Your task to perform on an android device: How much does a 3 bedroom apartment rent for in Boston? Image 0: 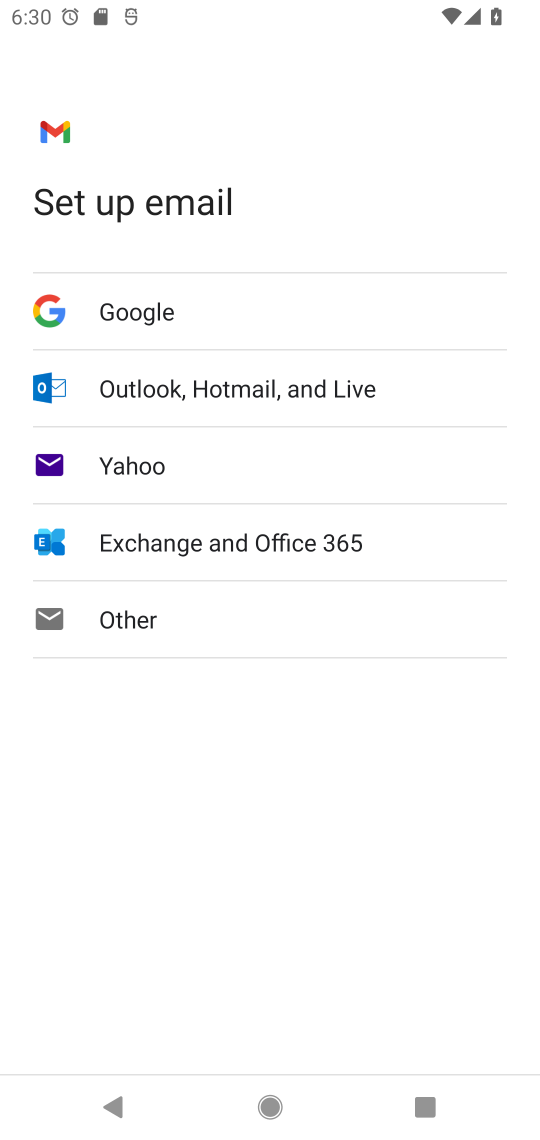
Step 0: press home button
Your task to perform on an android device: How much does a 3 bedroom apartment rent for in Boston? Image 1: 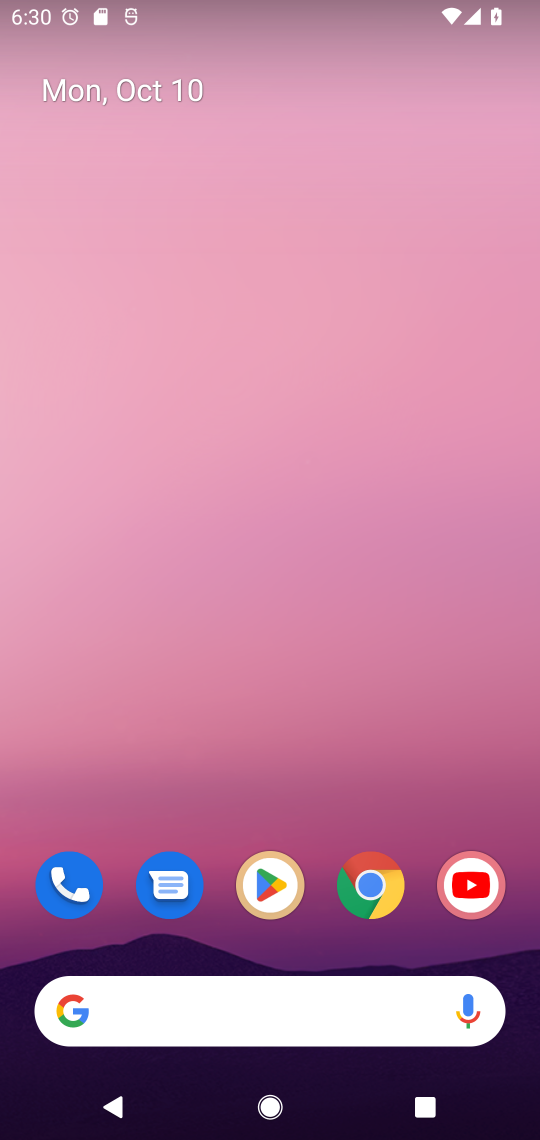
Step 1: click (377, 878)
Your task to perform on an android device: How much does a 3 bedroom apartment rent for in Boston? Image 2: 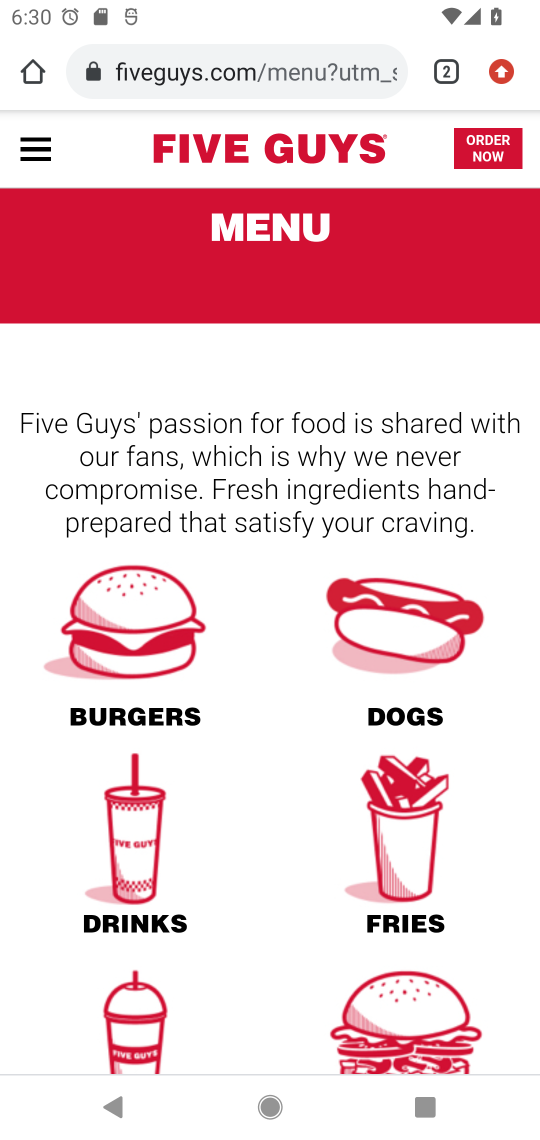
Step 2: click (253, 66)
Your task to perform on an android device: How much does a 3 bedroom apartment rent for in Boston? Image 3: 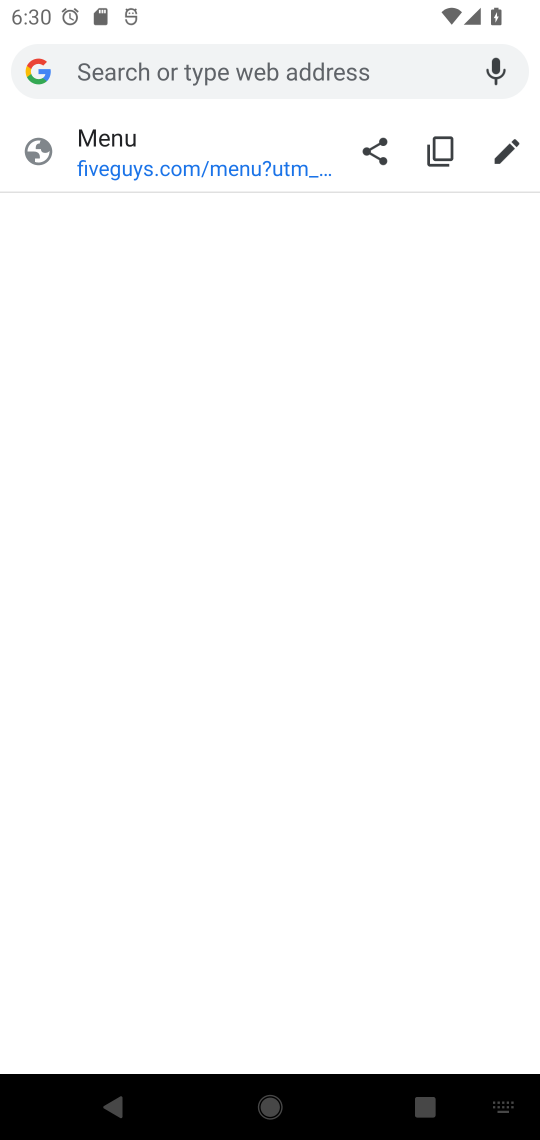
Step 3: type "3 bedroom apartment rent for in Boston"
Your task to perform on an android device: How much does a 3 bedroom apartment rent for in Boston? Image 4: 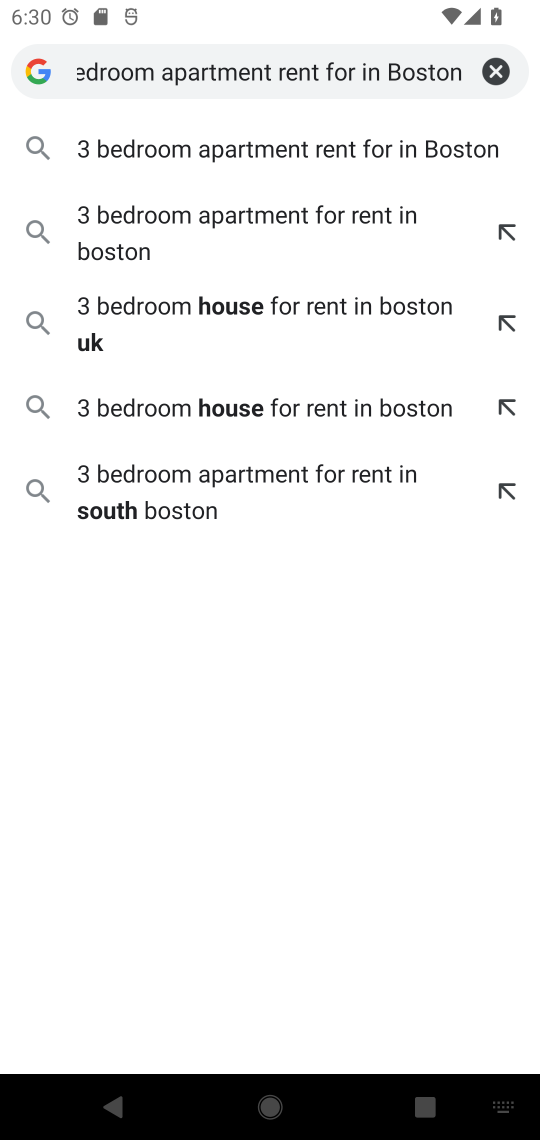
Step 4: click (247, 144)
Your task to perform on an android device: How much does a 3 bedroom apartment rent for in Boston? Image 5: 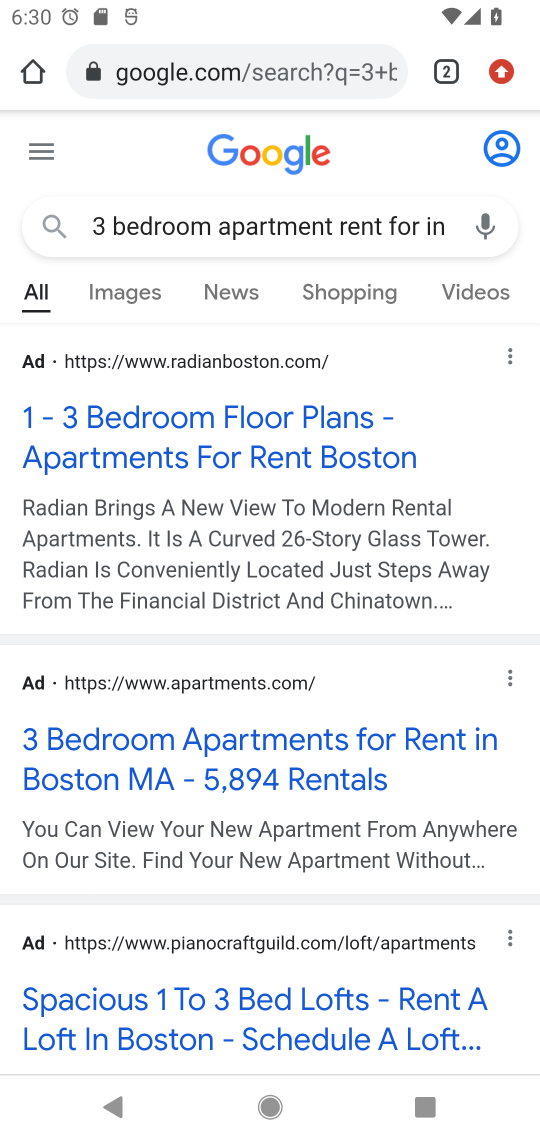
Step 5: drag from (353, 660) to (312, 454)
Your task to perform on an android device: How much does a 3 bedroom apartment rent for in Boston? Image 6: 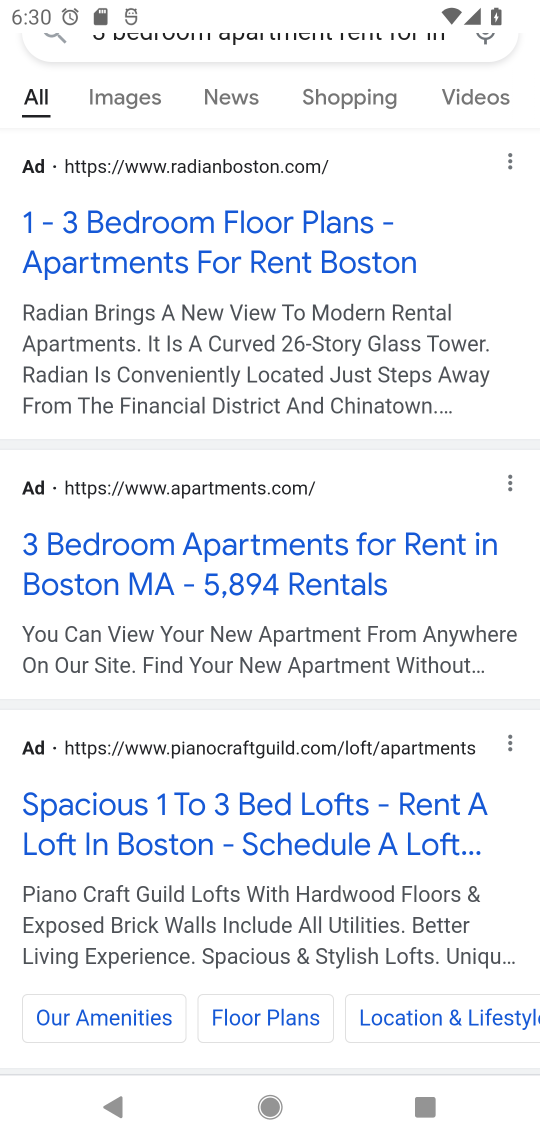
Step 6: click (306, 543)
Your task to perform on an android device: How much does a 3 bedroom apartment rent for in Boston? Image 7: 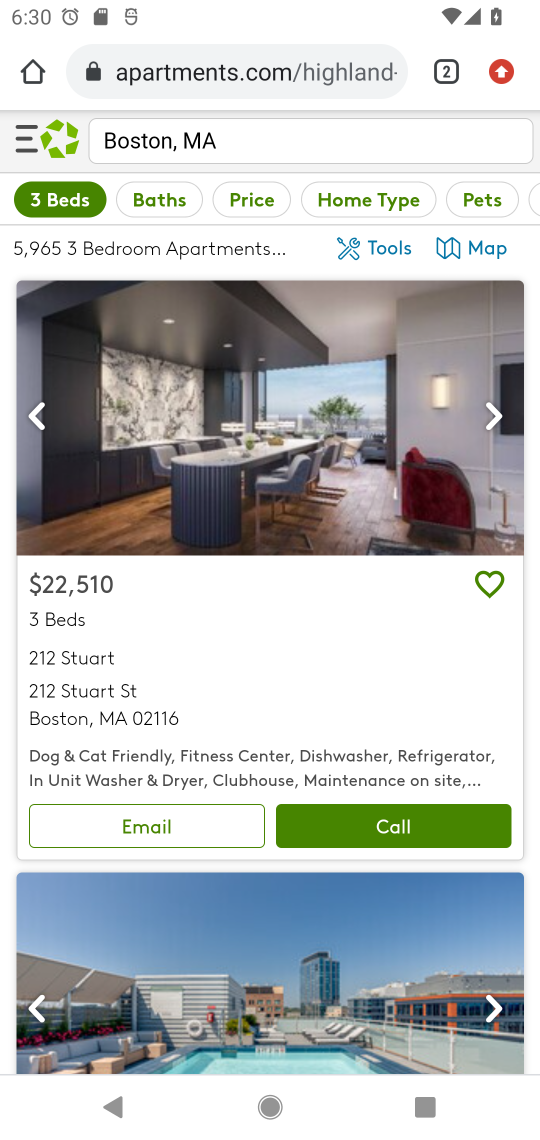
Step 7: task complete